Your task to perform on an android device: refresh tabs in the chrome app Image 0: 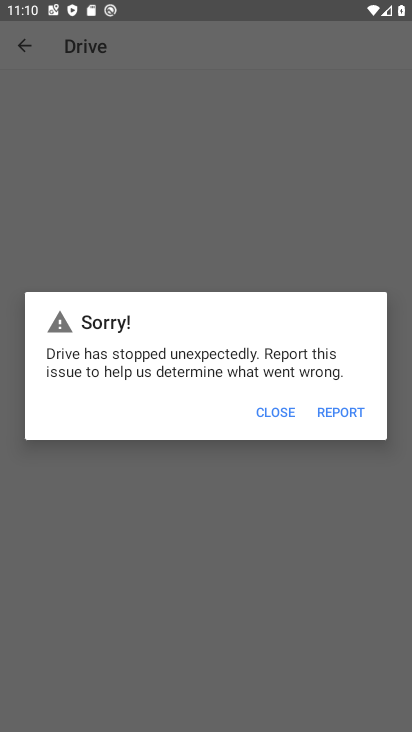
Step 0: press home button
Your task to perform on an android device: refresh tabs in the chrome app Image 1: 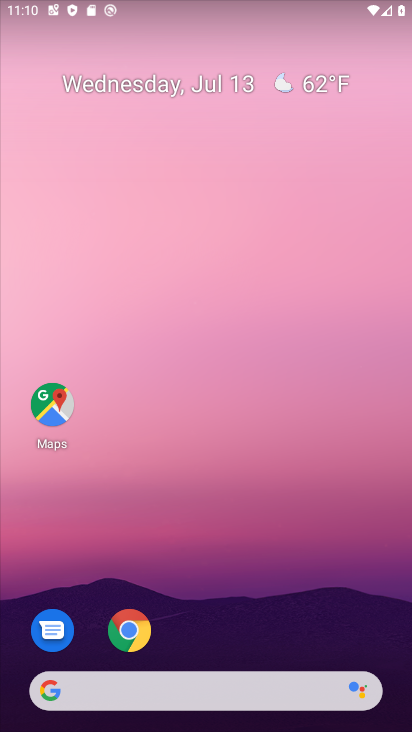
Step 1: drag from (362, 557) to (411, 18)
Your task to perform on an android device: refresh tabs in the chrome app Image 2: 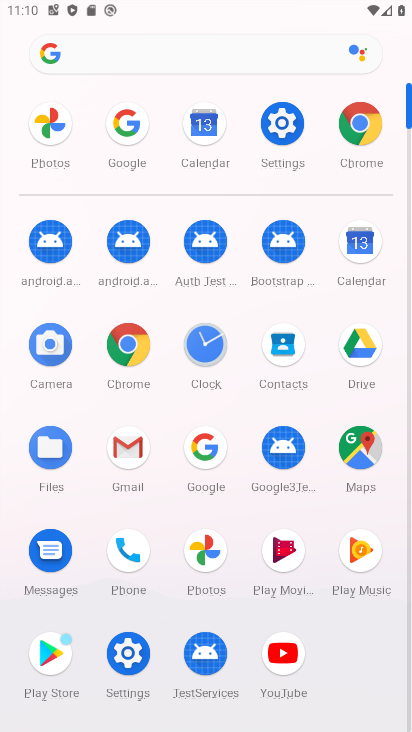
Step 2: click (350, 134)
Your task to perform on an android device: refresh tabs in the chrome app Image 3: 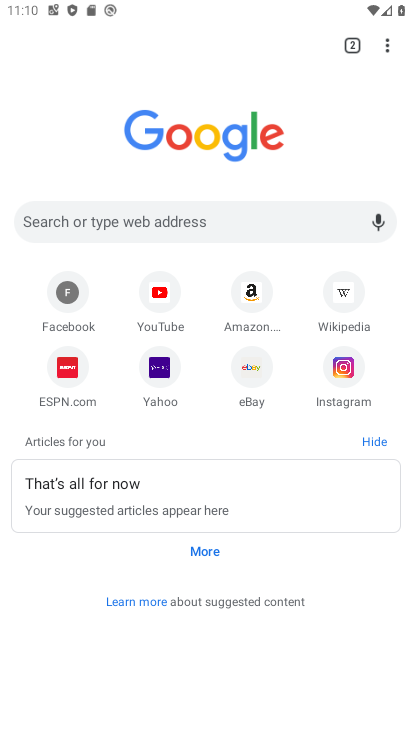
Step 3: click (386, 53)
Your task to perform on an android device: refresh tabs in the chrome app Image 4: 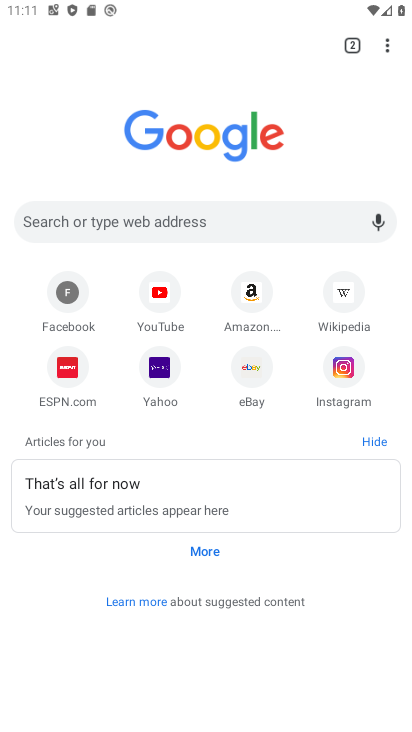
Step 4: task complete